Your task to perform on an android device: empty trash in the gmail app Image 0: 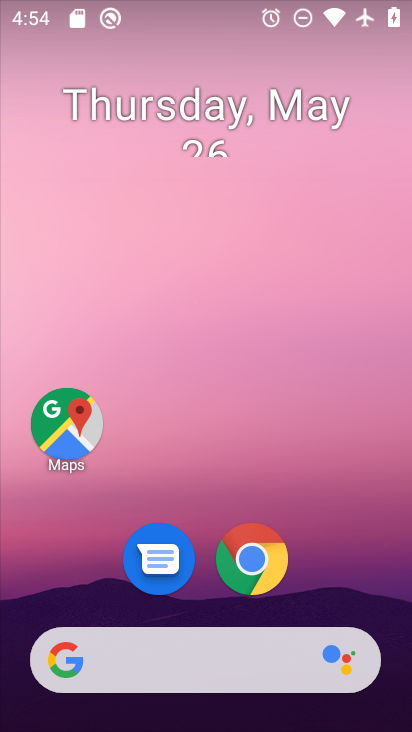
Step 0: press home button
Your task to perform on an android device: empty trash in the gmail app Image 1: 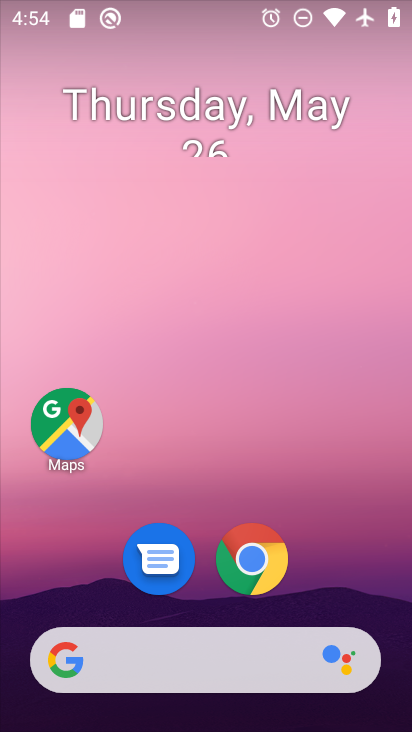
Step 1: drag from (350, 542) to (91, 7)
Your task to perform on an android device: empty trash in the gmail app Image 2: 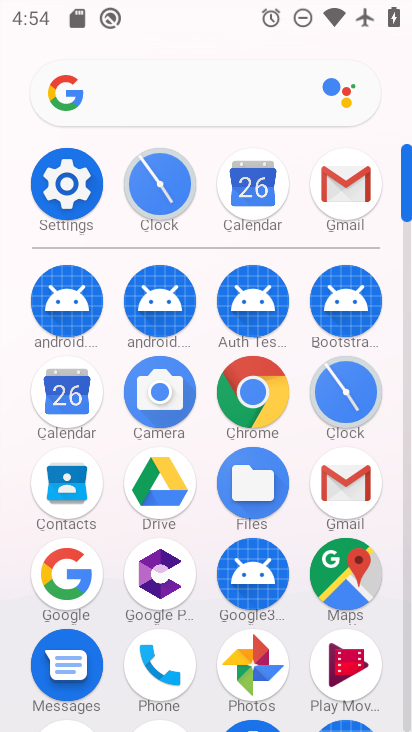
Step 2: click (344, 512)
Your task to perform on an android device: empty trash in the gmail app Image 3: 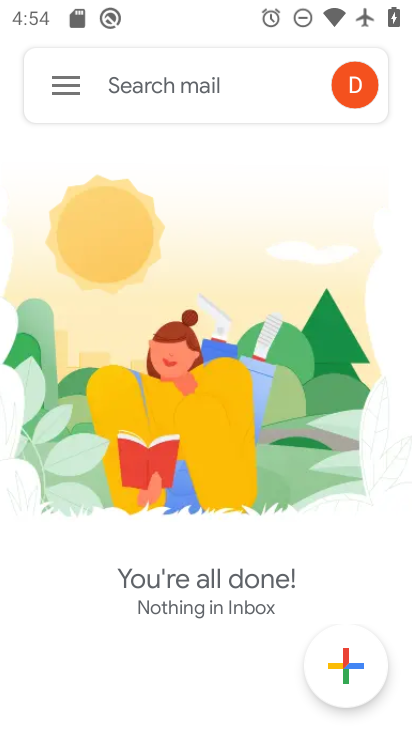
Step 3: click (43, 67)
Your task to perform on an android device: empty trash in the gmail app Image 4: 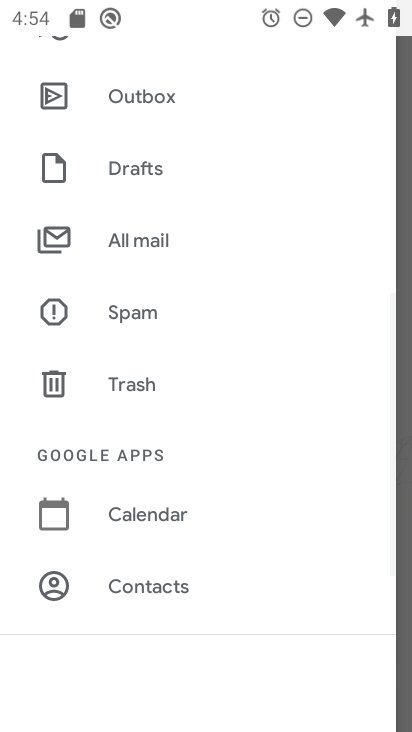
Step 4: click (141, 377)
Your task to perform on an android device: empty trash in the gmail app Image 5: 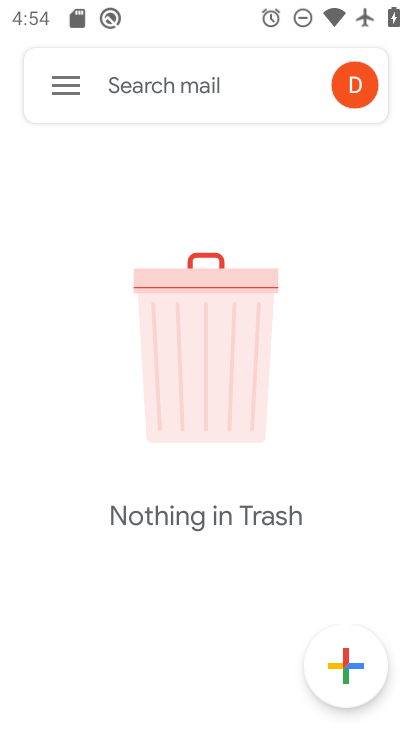
Step 5: task complete